Your task to perform on an android device: open app "Viber Messenger" Image 0: 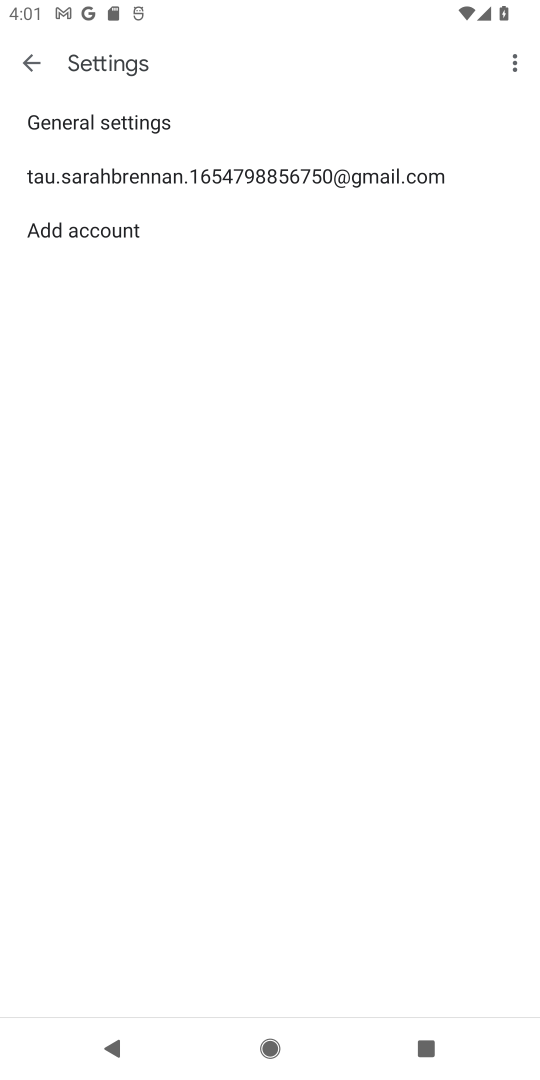
Step 0: press home button
Your task to perform on an android device: open app "Viber Messenger" Image 1: 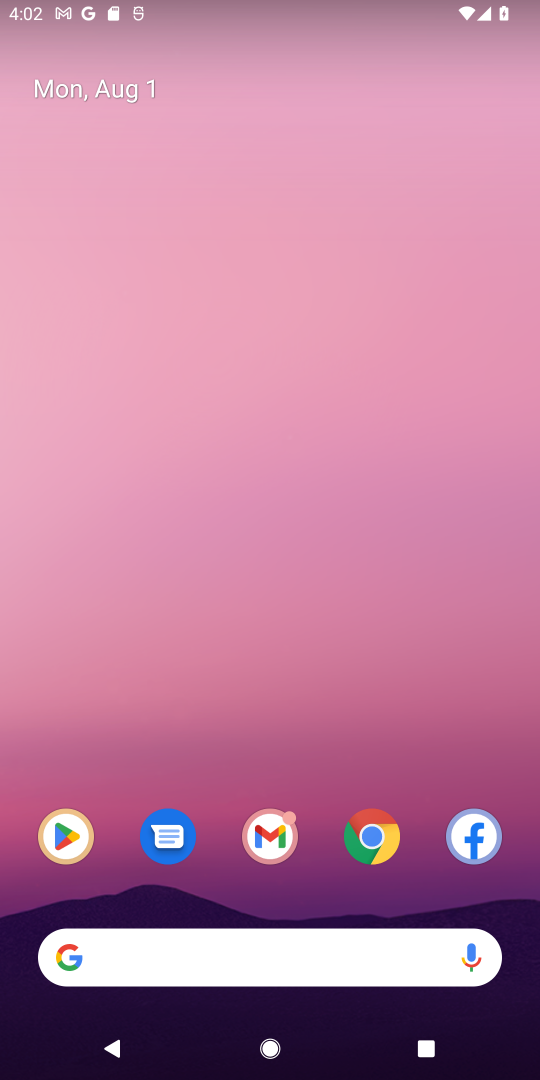
Step 1: drag from (305, 737) to (285, 485)
Your task to perform on an android device: open app "Viber Messenger" Image 2: 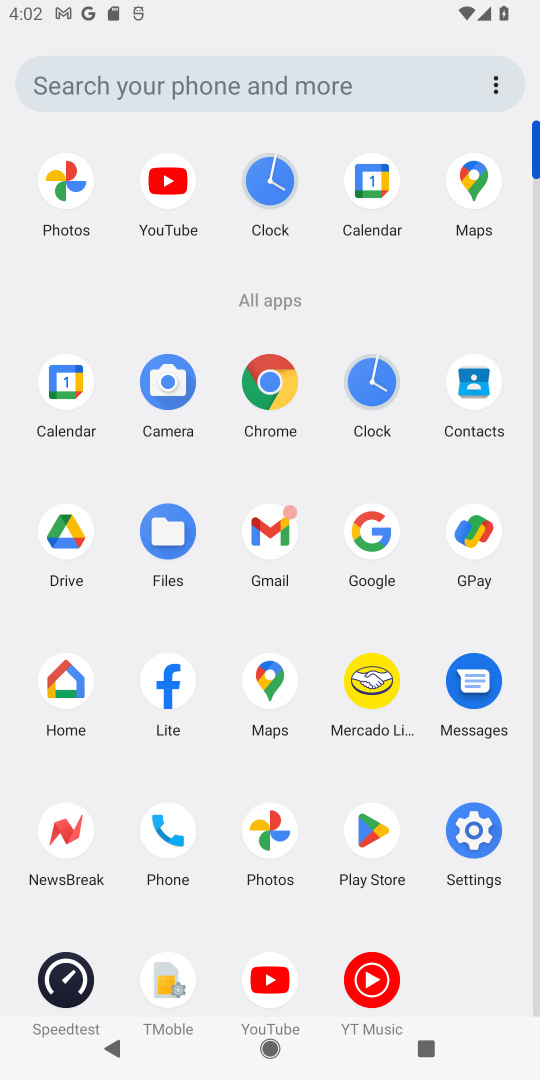
Step 2: click (360, 834)
Your task to perform on an android device: open app "Viber Messenger" Image 3: 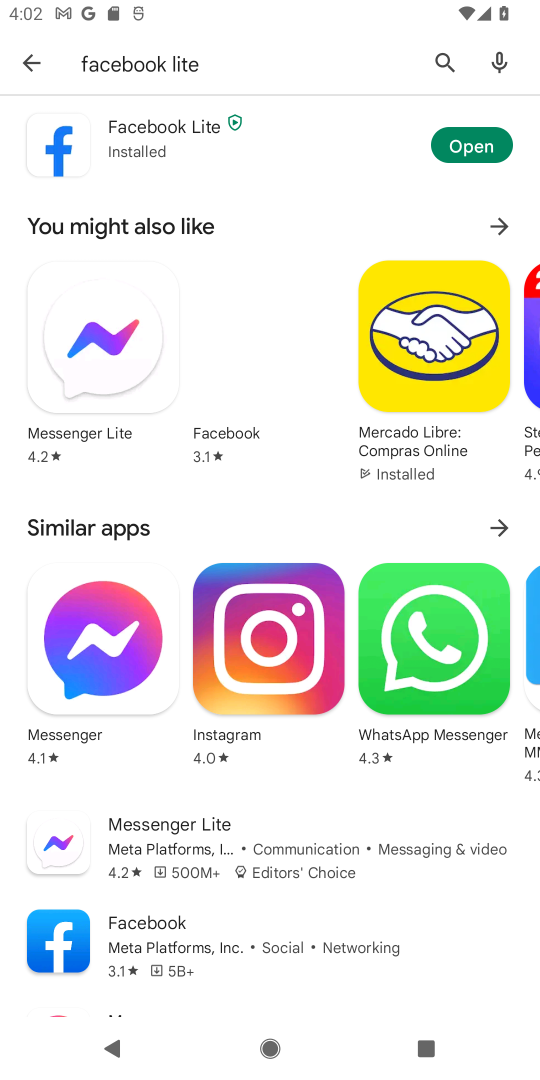
Step 3: click (26, 65)
Your task to perform on an android device: open app "Viber Messenger" Image 4: 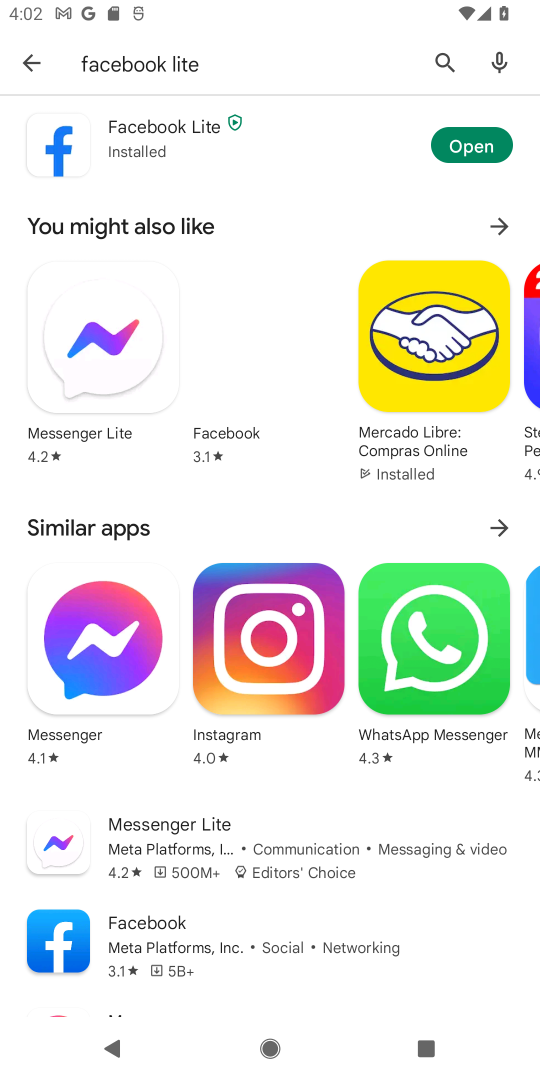
Step 4: click (30, 59)
Your task to perform on an android device: open app "Viber Messenger" Image 5: 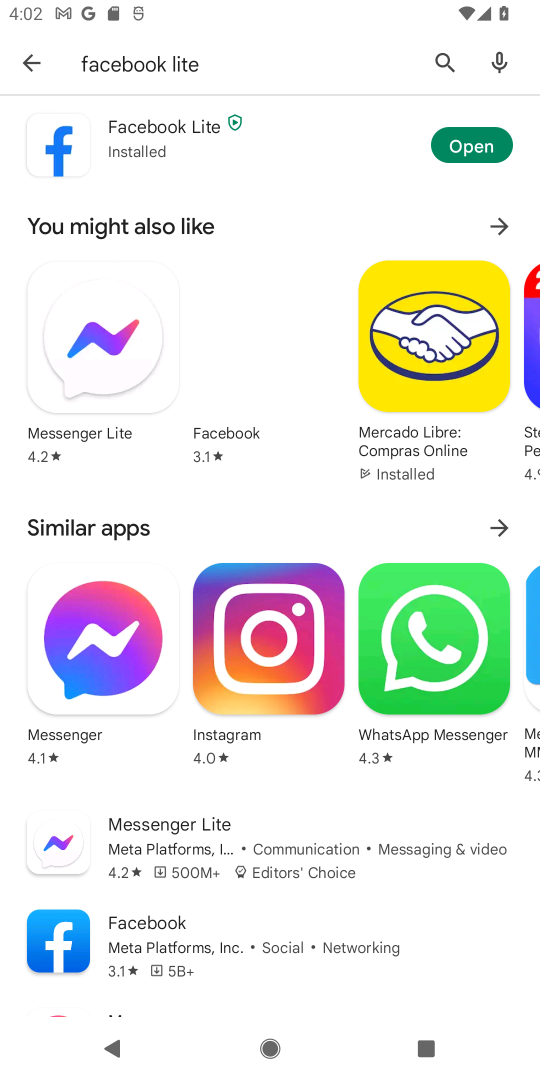
Step 5: click (30, 59)
Your task to perform on an android device: open app "Viber Messenger" Image 6: 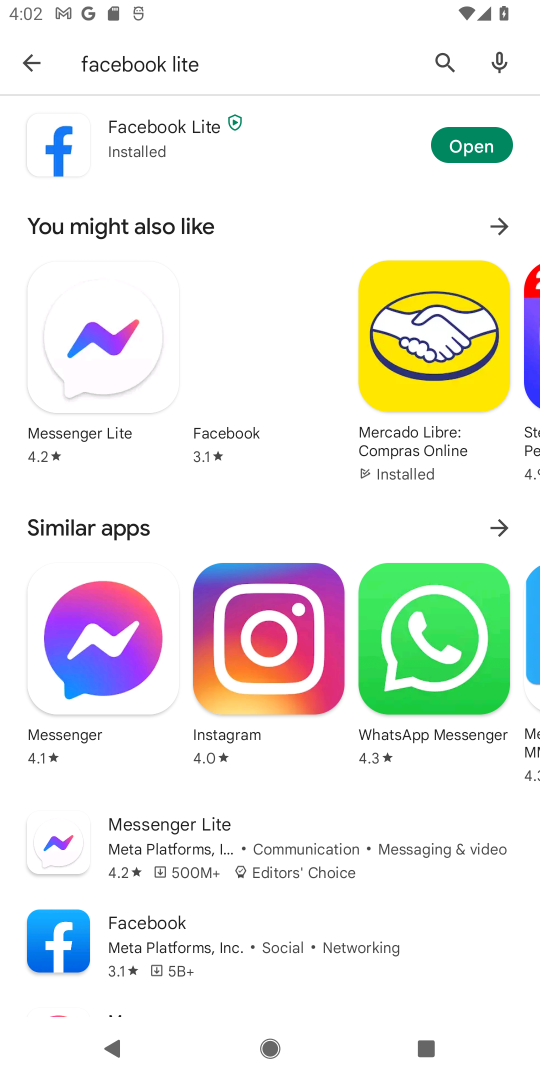
Step 6: click (29, 68)
Your task to perform on an android device: open app "Viber Messenger" Image 7: 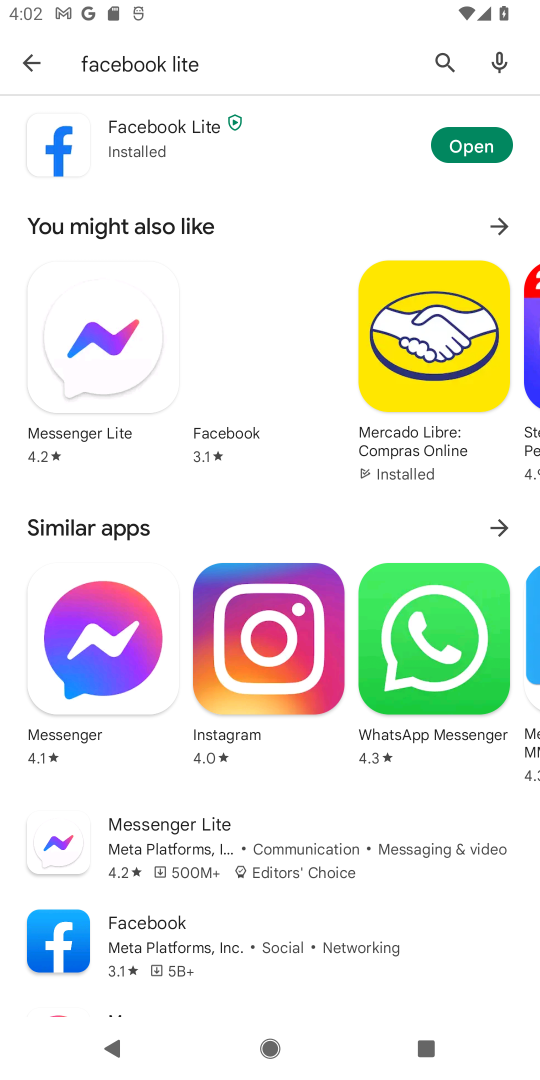
Step 7: click (450, 58)
Your task to perform on an android device: open app "Viber Messenger" Image 8: 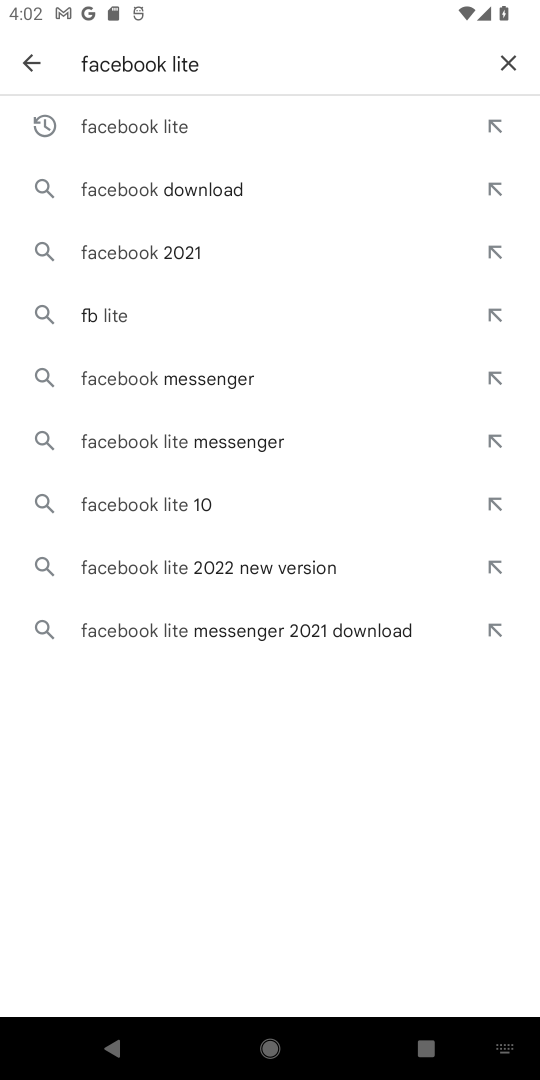
Step 8: click (513, 56)
Your task to perform on an android device: open app "Viber Messenger" Image 9: 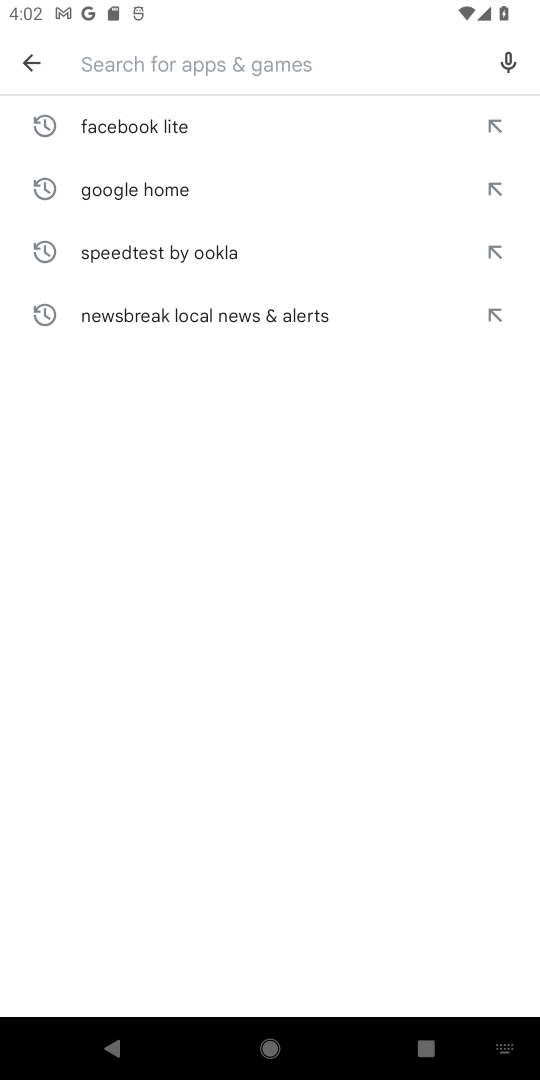
Step 9: type "Viber Messenger"
Your task to perform on an android device: open app "Viber Messenger" Image 10: 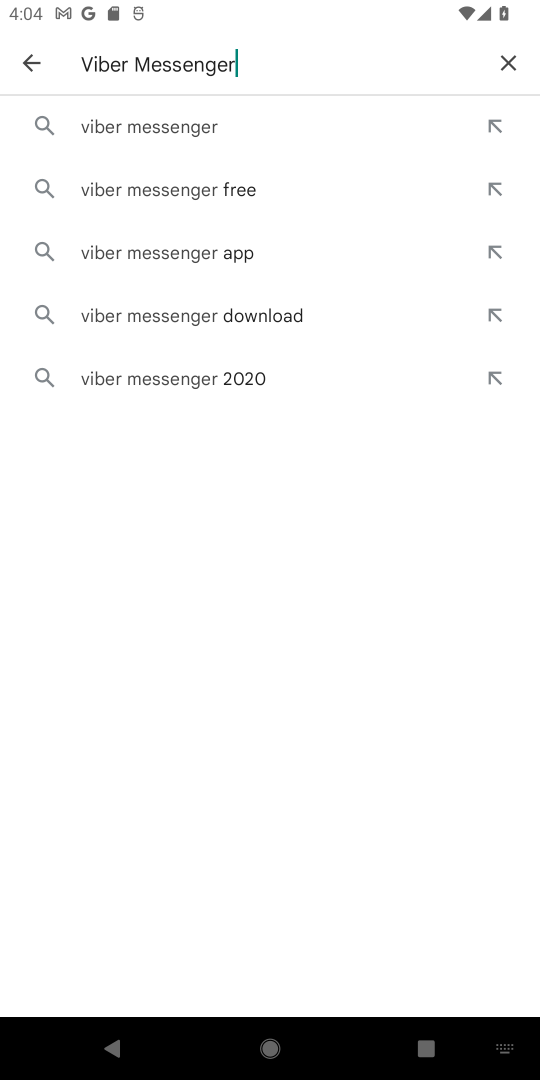
Step 10: click (149, 119)
Your task to perform on an android device: open app "Viber Messenger" Image 11: 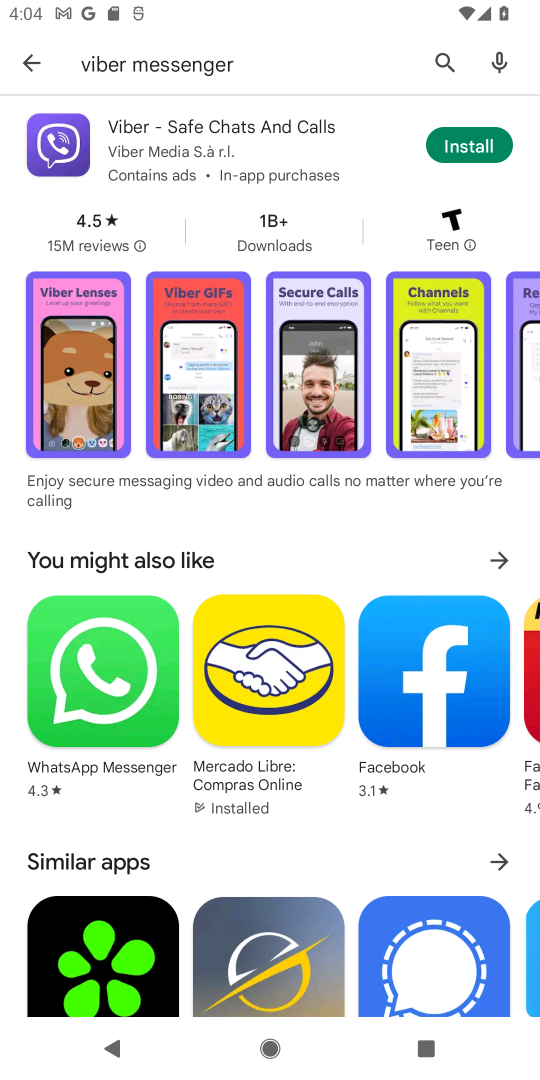
Step 11: click (459, 136)
Your task to perform on an android device: open app "Viber Messenger" Image 12: 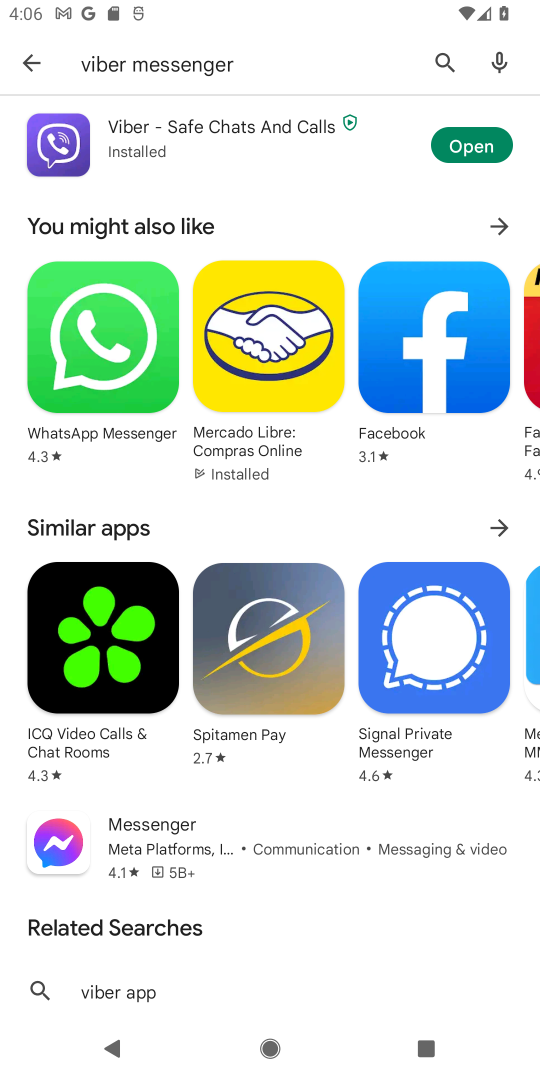
Step 12: task complete